Your task to perform on an android device: When is my next appointment? Image 0: 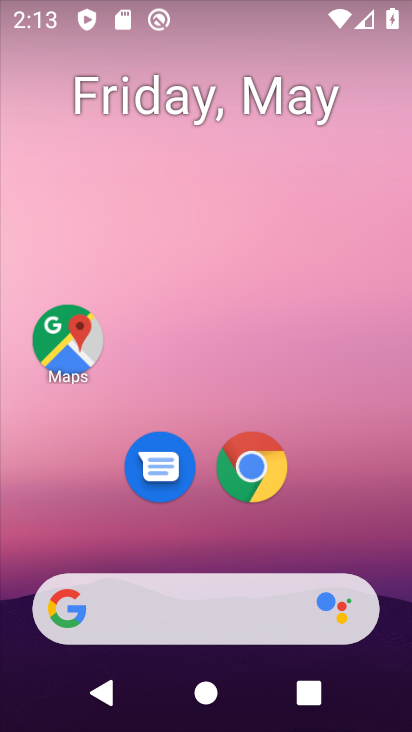
Step 0: drag from (251, 559) to (148, 7)
Your task to perform on an android device: When is my next appointment? Image 1: 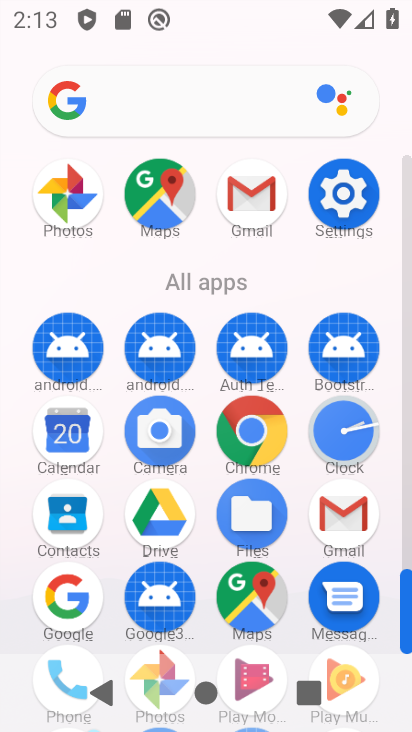
Step 1: click (55, 441)
Your task to perform on an android device: When is my next appointment? Image 2: 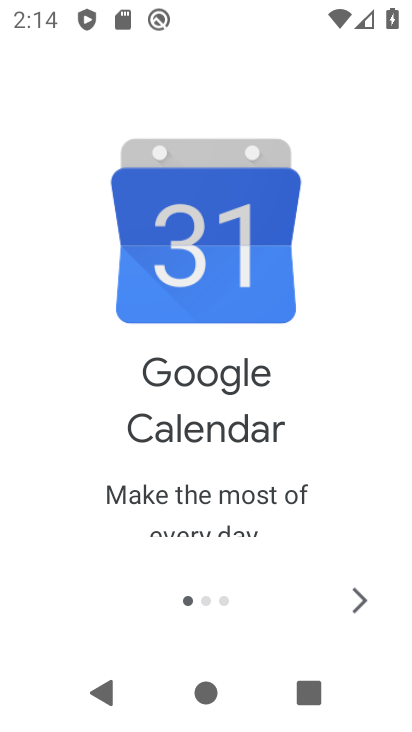
Step 2: click (360, 598)
Your task to perform on an android device: When is my next appointment? Image 3: 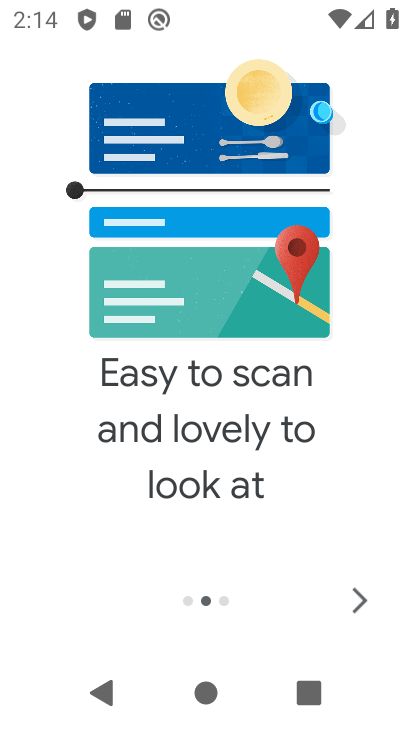
Step 3: click (349, 582)
Your task to perform on an android device: When is my next appointment? Image 4: 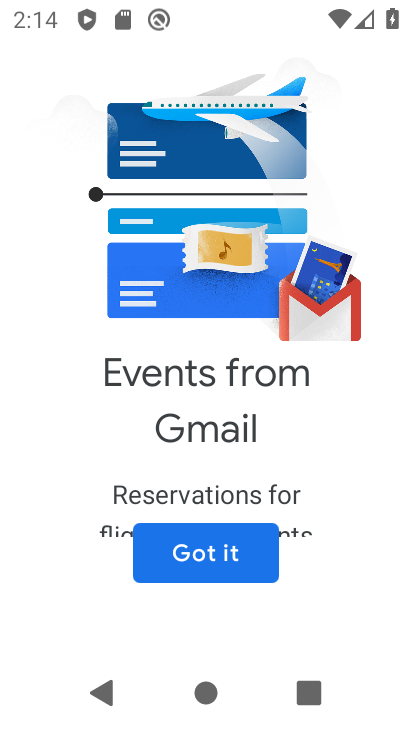
Step 4: click (255, 549)
Your task to perform on an android device: When is my next appointment? Image 5: 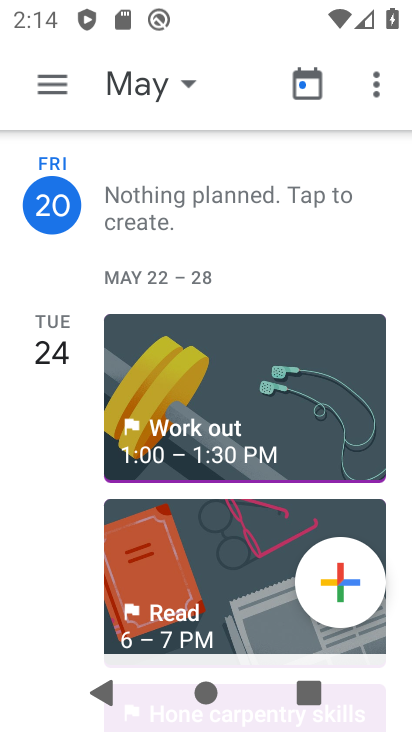
Step 5: click (128, 66)
Your task to perform on an android device: When is my next appointment? Image 6: 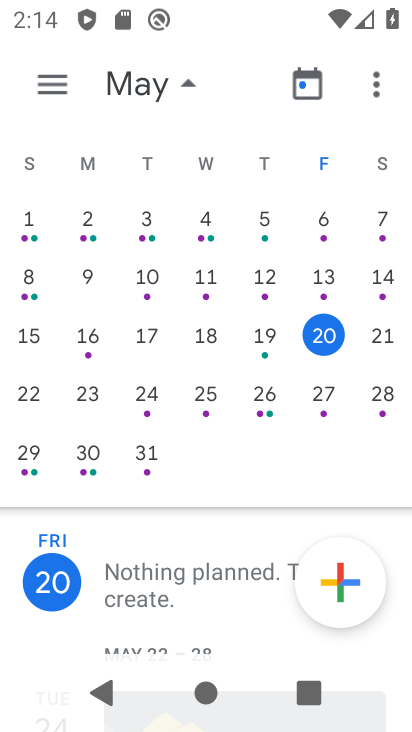
Step 6: click (324, 340)
Your task to perform on an android device: When is my next appointment? Image 7: 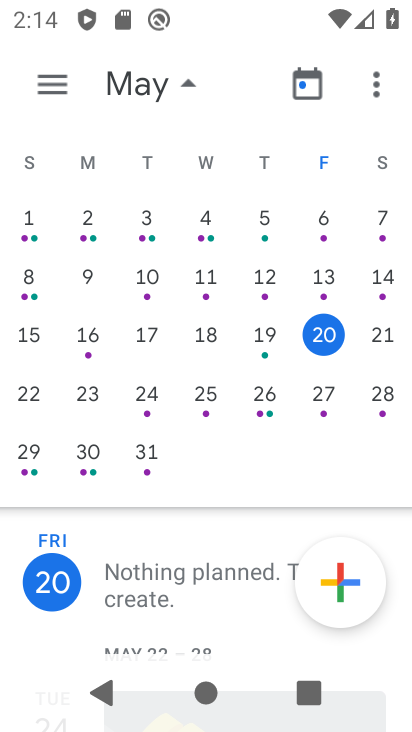
Step 7: task complete